Your task to perform on an android device: Search for Mexican restaurants on Maps Image 0: 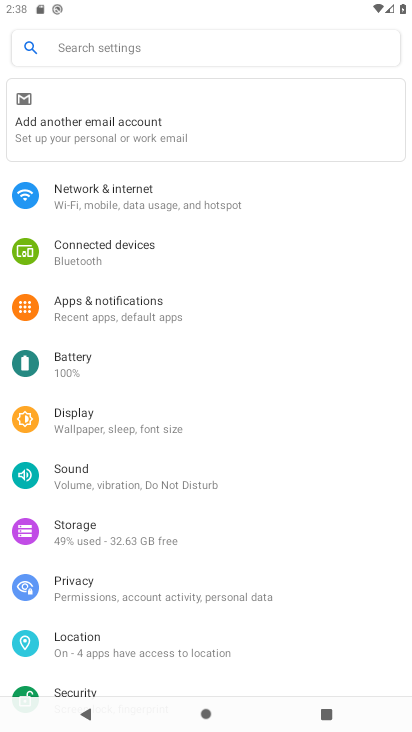
Step 0: press home button
Your task to perform on an android device: Search for Mexican restaurants on Maps Image 1: 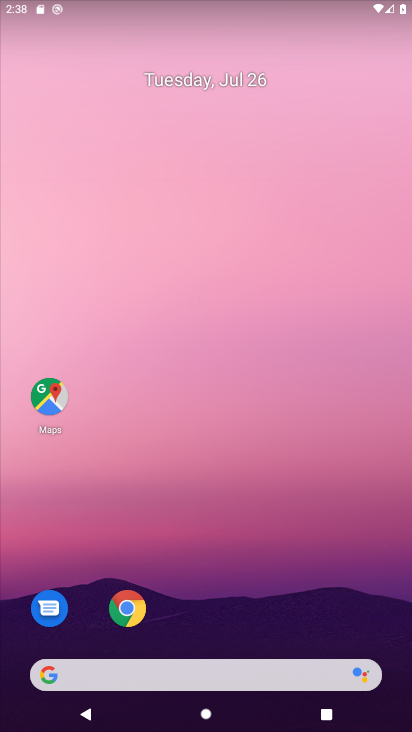
Step 1: click (50, 389)
Your task to perform on an android device: Search for Mexican restaurants on Maps Image 2: 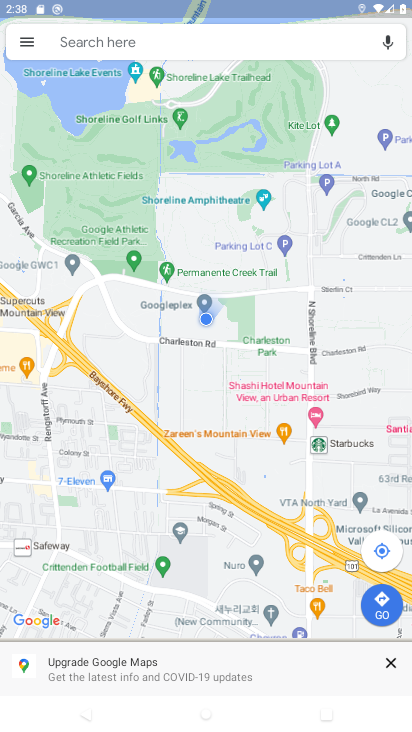
Step 2: click (172, 45)
Your task to perform on an android device: Search for Mexican restaurants on Maps Image 3: 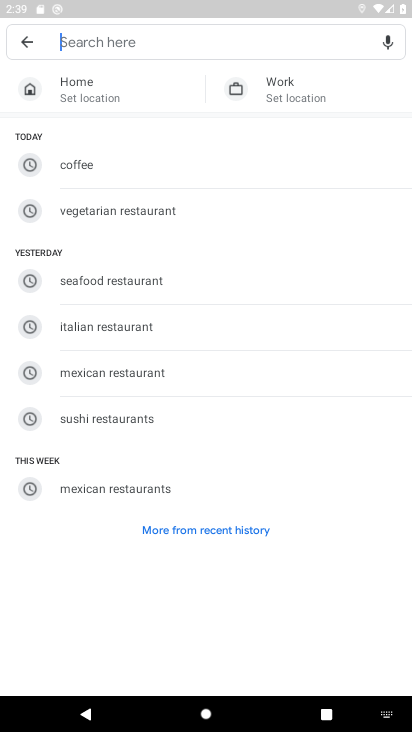
Step 3: click (145, 377)
Your task to perform on an android device: Search for Mexican restaurants on Maps Image 4: 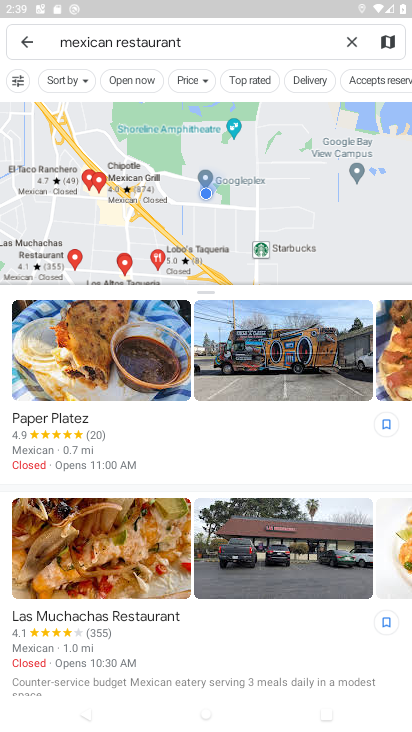
Step 4: task complete